Your task to perform on an android device: turn off data saver in the chrome app Image 0: 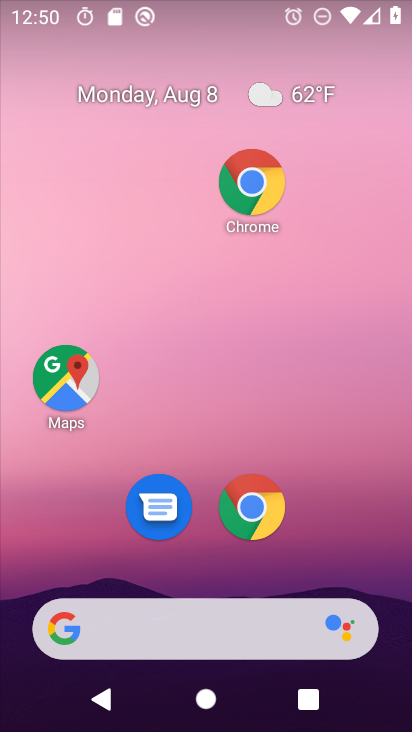
Step 0: click (258, 511)
Your task to perform on an android device: turn off data saver in the chrome app Image 1: 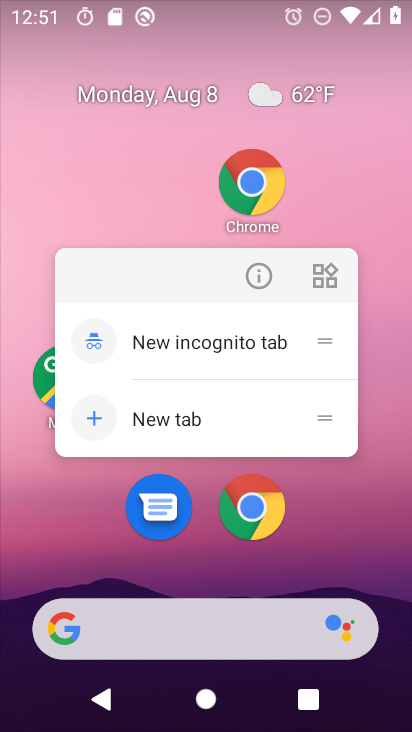
Step 1: click (250, 511)
Your task to perform on an android device: turn off data saver in the chrome app Image 2: 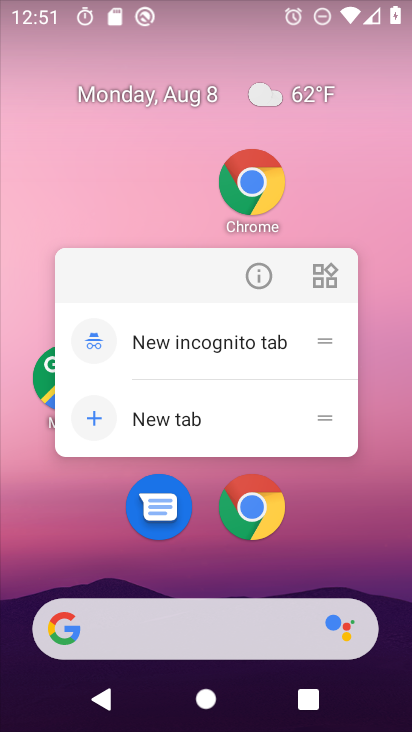
Step 2: click (250, 510)
Your task to perform on an android device: turn off data saver in the chrome app Image 3: 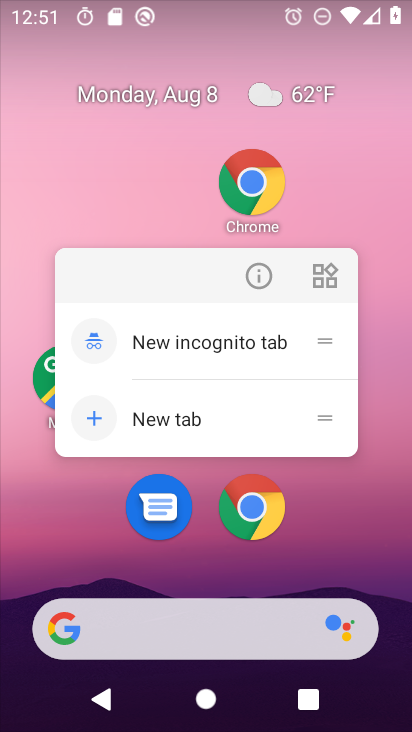
Step 3: click (311, 526)
Your task to perform on an android device: turn off data saver in the chrome app Image 4: 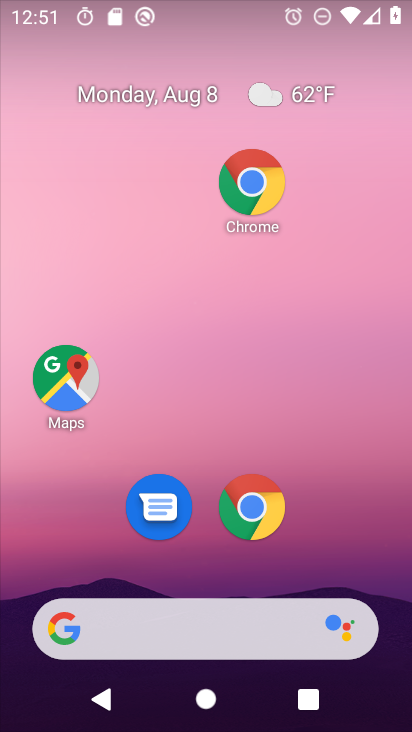
Step 4: drag from (352, 564) to (409, 406)
Your task to perform on an android device: turn off data saver in the chrome app Image 5: 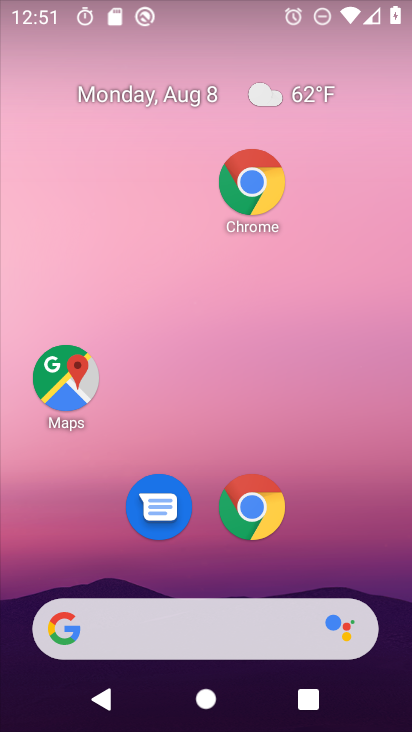
Step 5: drag from (349, 507) to (292, 18)
Your task to perform on an android device: turn off data saver in the chrome app Image 6: 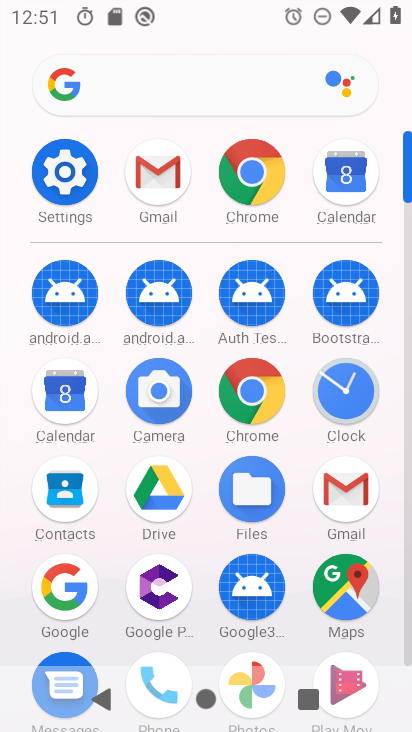
Step 6: click (248, 387)
Your task to perform on an android device: turn off data saver in the chrome app Image 7: 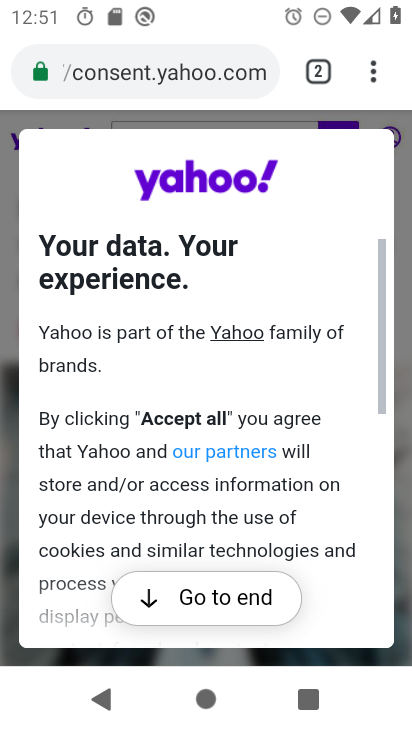
Step 7: drag from (374, 58) to (213, 514)
Your task to perform on an android device: turn off data saver in the chrome app Image 8: 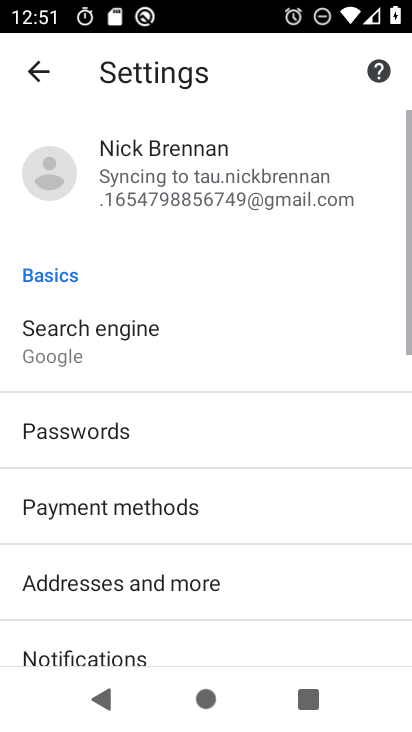
Step 8: drag from (264, 568) to (322, 38)
Your task to perform on an android device: turn off data saver in the chrome app Image 9: 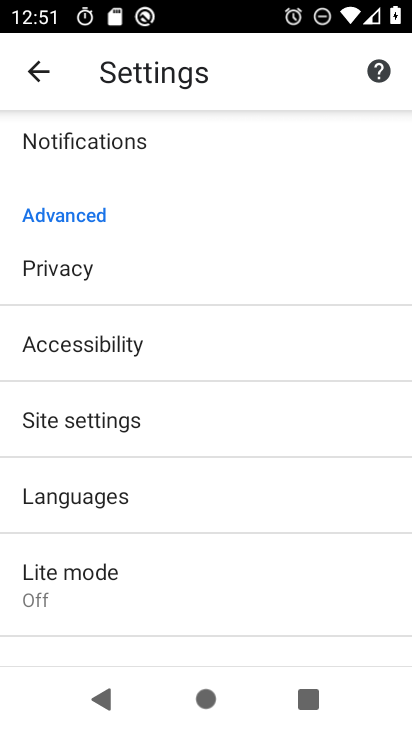
Step 9: click (118, 571)
Your task to perform on an android device: turn off data saver in the chrome app Image 10: 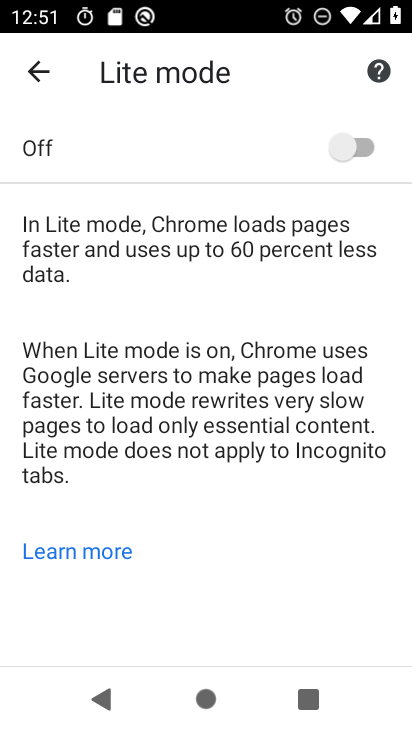
Step 10: task complete